Your task to perform on an android device: Go to location settings Image 0: 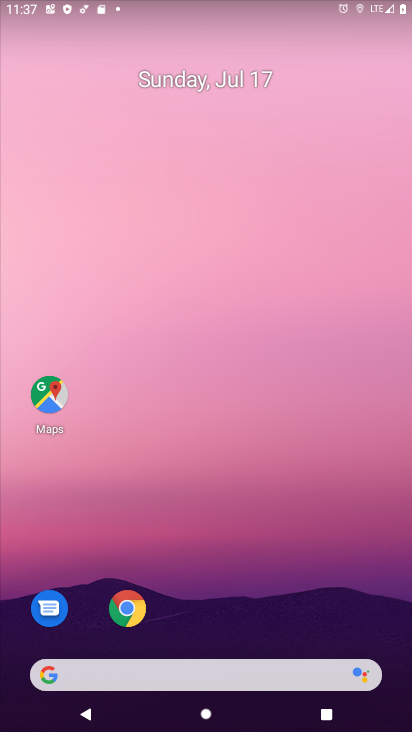
Step 0: drag from (210, 630) to (257, 3)
Your task to perform on an android device: Go to location settings Image 1: 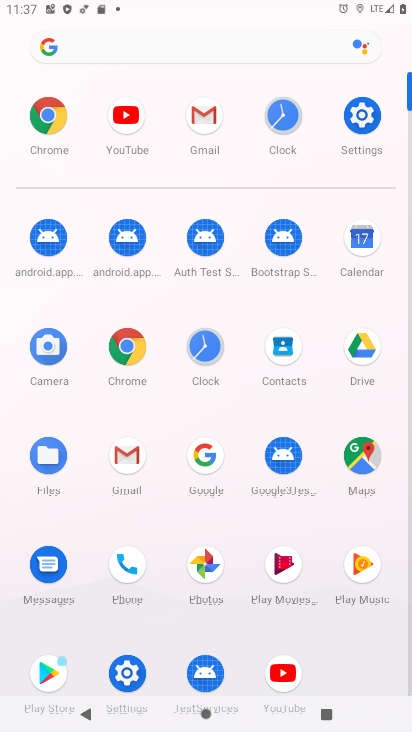
Step 1: click (111, 674)
Your task to perform on an android device: Go to location settings Image 2: 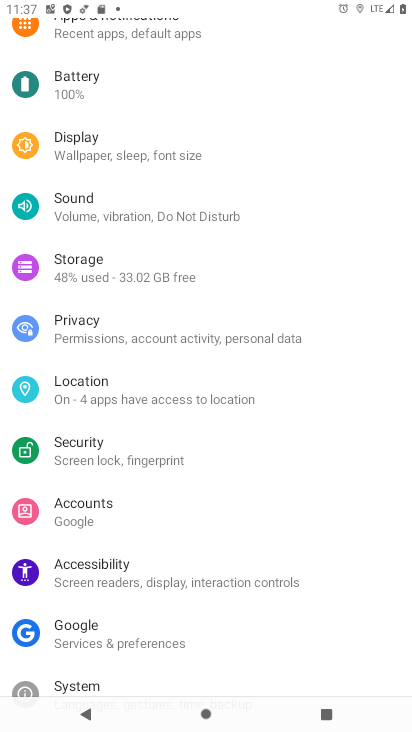
Step 2: click (80, 376)
Your task to perform on an android device: Go to location settings Image 3: 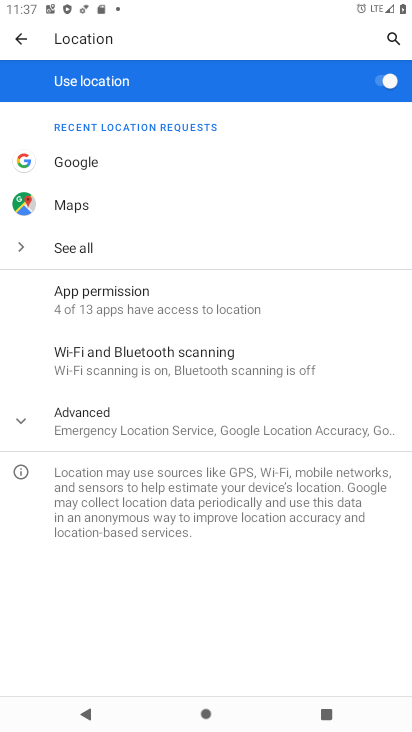
Step 3: click (122, 415)
Your task to perform on an android device: Go to location settings Image 4: 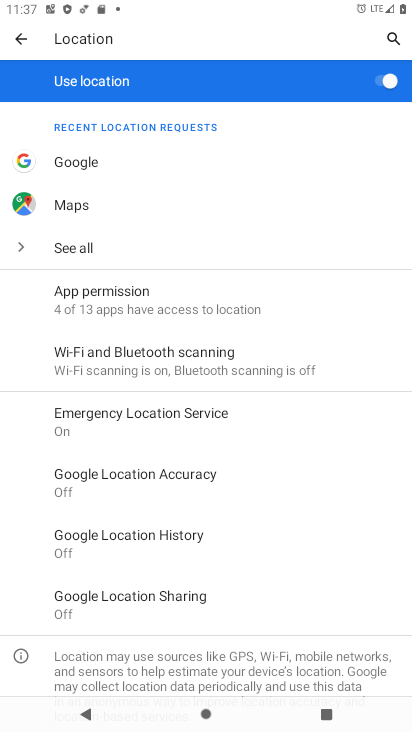
Step 4: task complete